Your task to perform on an android device: toggle pop-ups in chrome Image 0: 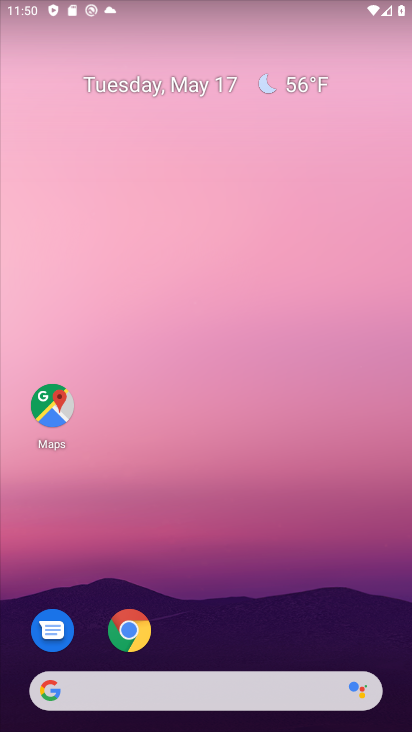
Step 0: click (128, 629)
Your task to perform on an android device: toggle pop-ups in chrome Image 1: 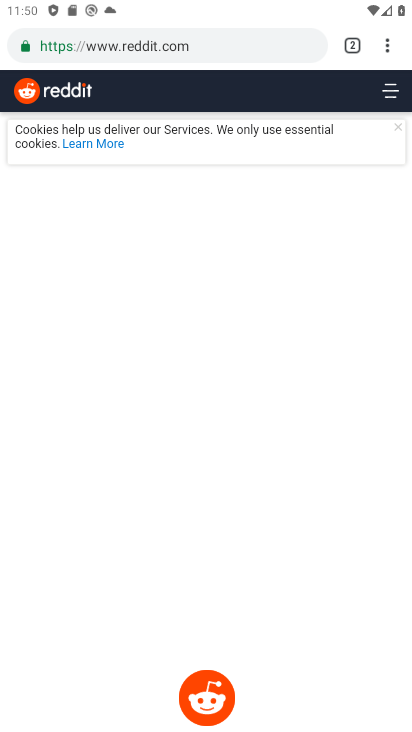
Step 1: click (387, 49)
Your task to perform on an android device: toggle pop-ups in chrome Image 2: 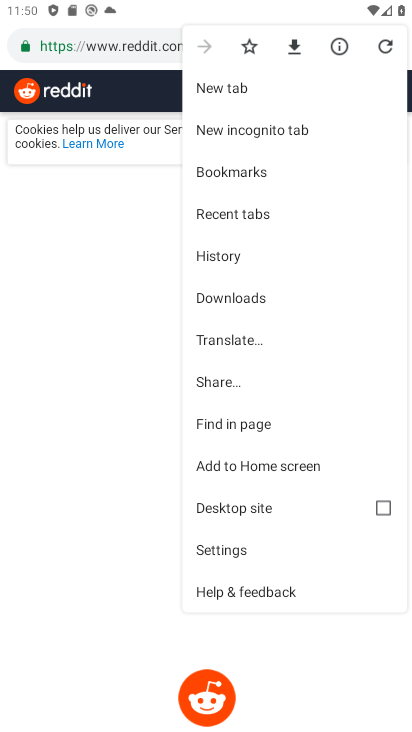
Step 2: click (219, 543)
Your task to perform on an android device: toggle pop-ups in chrome Image 3: 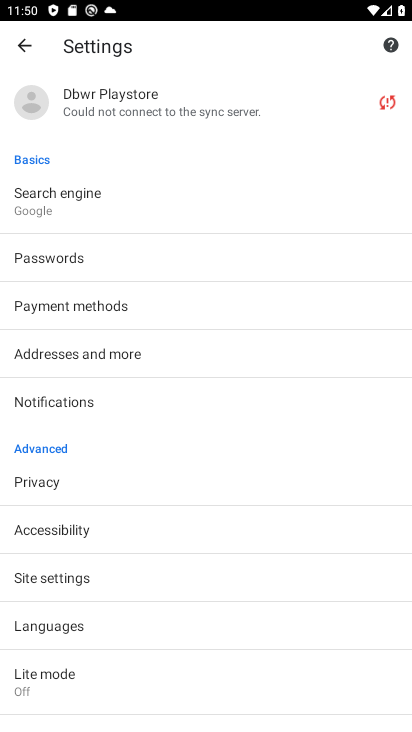
Step 3: click (61, 576)
Your task to perform on an android device: toggle pop-ups in chrome Image 4: 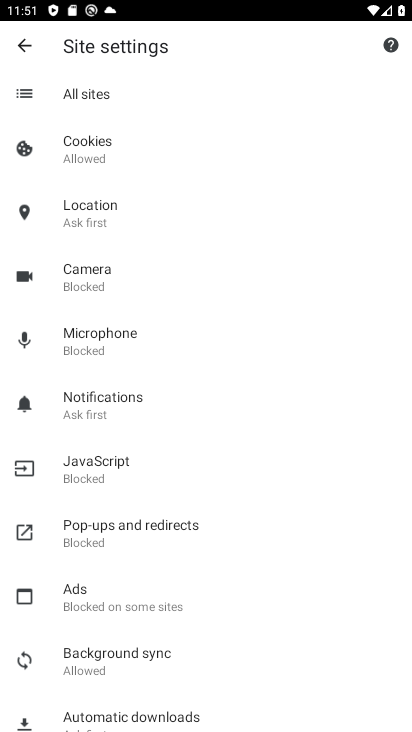
Step 4: click (94, 526)
Your task to perform on an android device: toggle pop-ups in chrome Image 5: 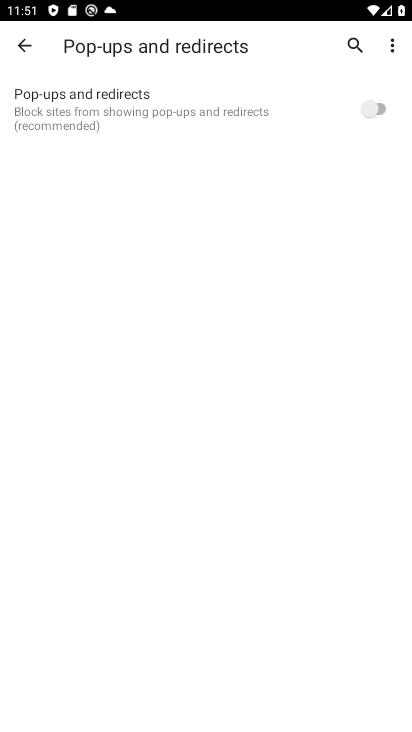
Step 5: click (380, 107)
Your task to perform on an android device: toggle pop-ups in chrome Image 6: 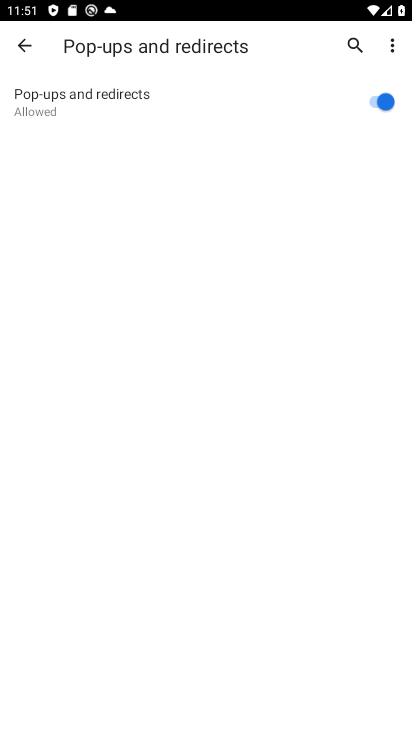
Step 6: task complete